Your task to perform on an android device: What's the weather? Image 0: 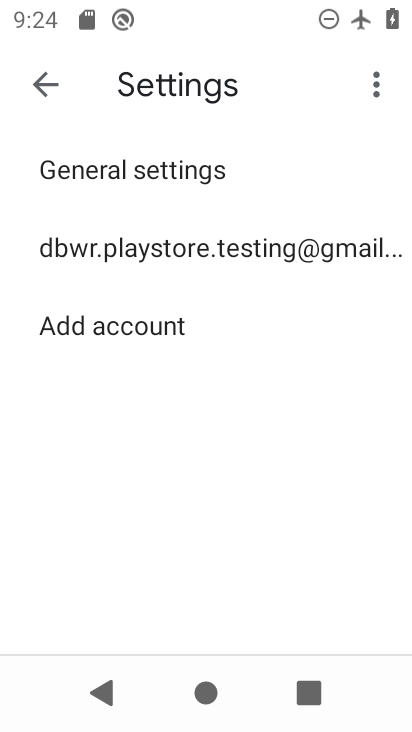
Step 0: press home button
Your task to perform on an android device: What's the weather? Image 1: 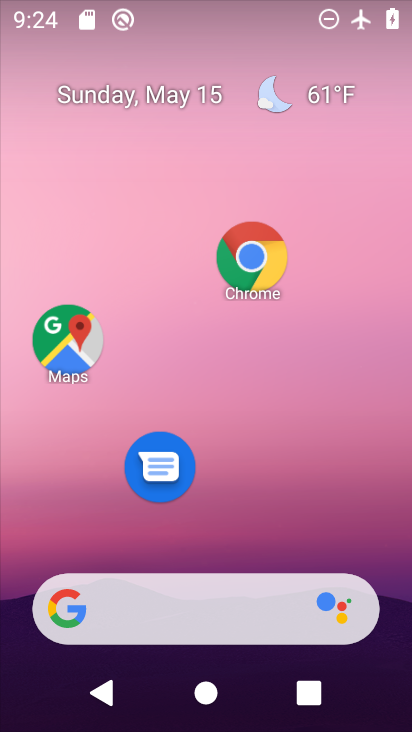
Step 1: click (347, 129)
Your task to perform on an android device: What's the weather? Image 2: 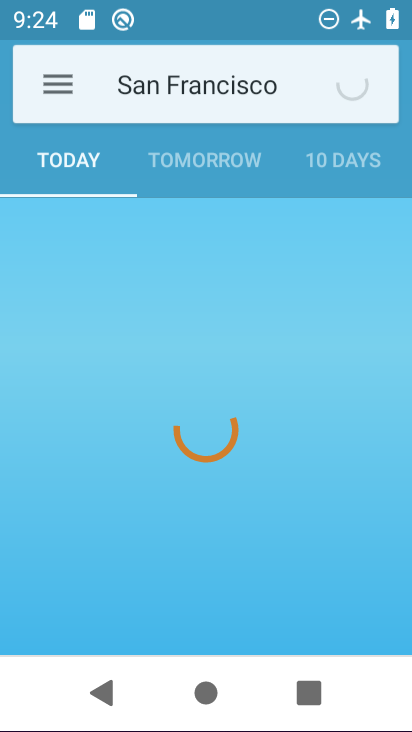
Step 2: click (341, 90)
Your task to perform on an android device: What's the weather? Image 3: 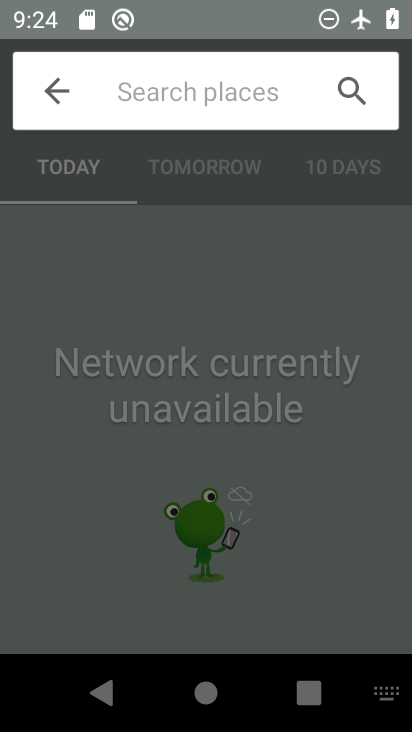
Step 3: drag from (279, 20) to (304, 588)
Your task to perform on an android device: What's the weather? Image 4: 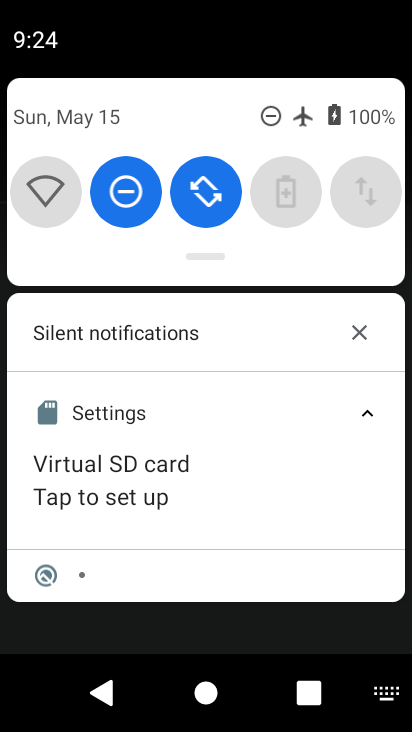
Step 4: drag from (234, 127) to (267, 660)
Your task to perform on an android device: What's the weather? Image 5: 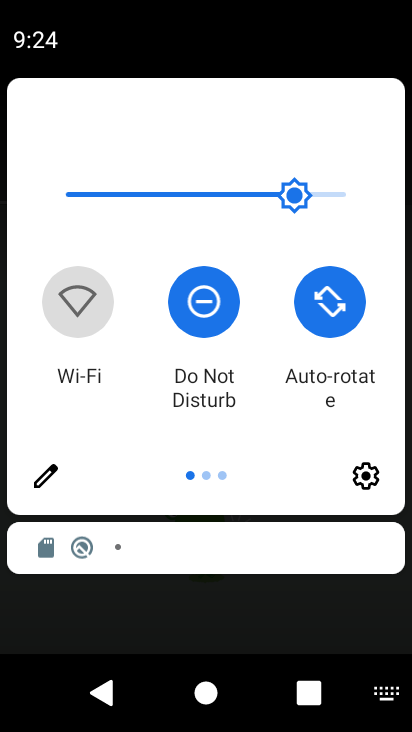
Step 5: drag from (364, 433) to (36, 435)
Your task to perform on an android device: What's the weather? Image 6: 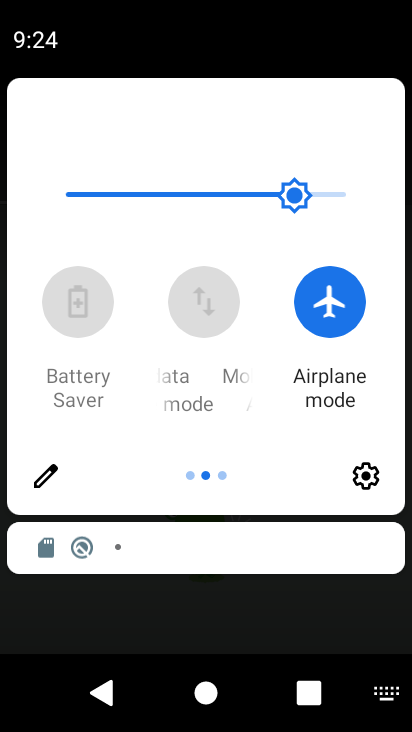
Step 6: click (334, 301)
Your task to perform on an android device: What's the weather? Image 7: 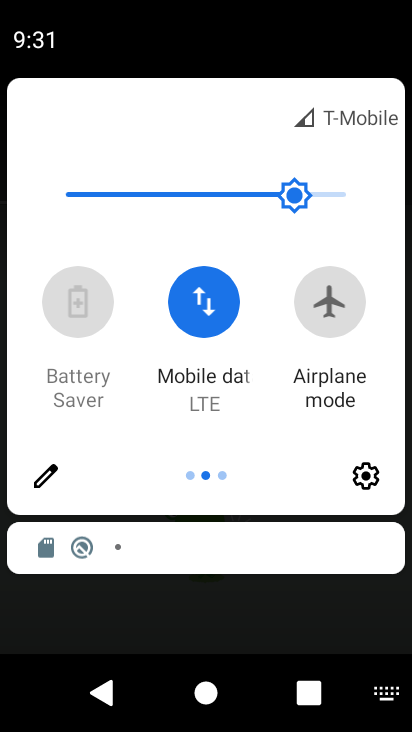
Step 7: task complete